Your task to perform on an android device: Add "razer nari" to the cart on bestbuy.com, then select checkout. Image 0: 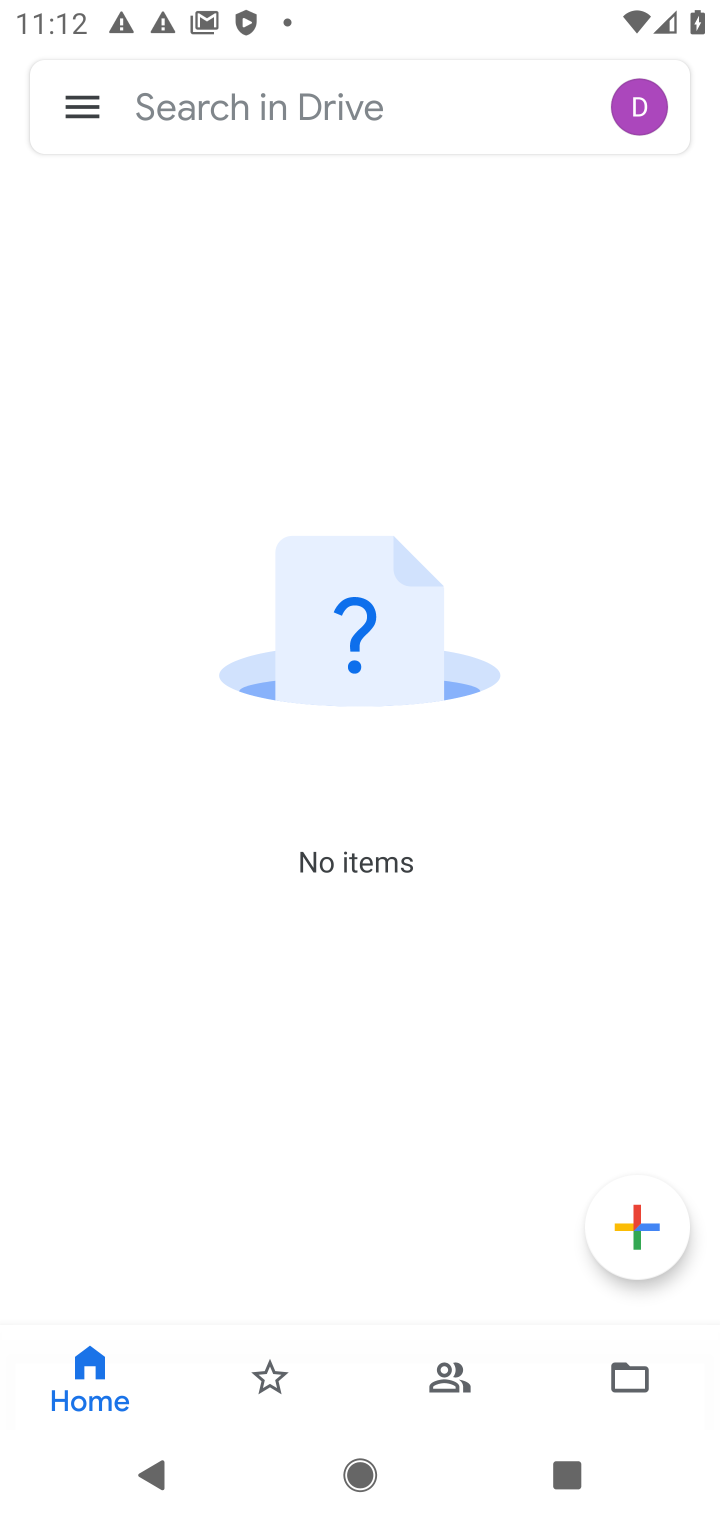
Step 0: press home button
Your task to perform on an android device: Add "razer nari" to the cart on bestbuy.com, then select checkout. Image 1: 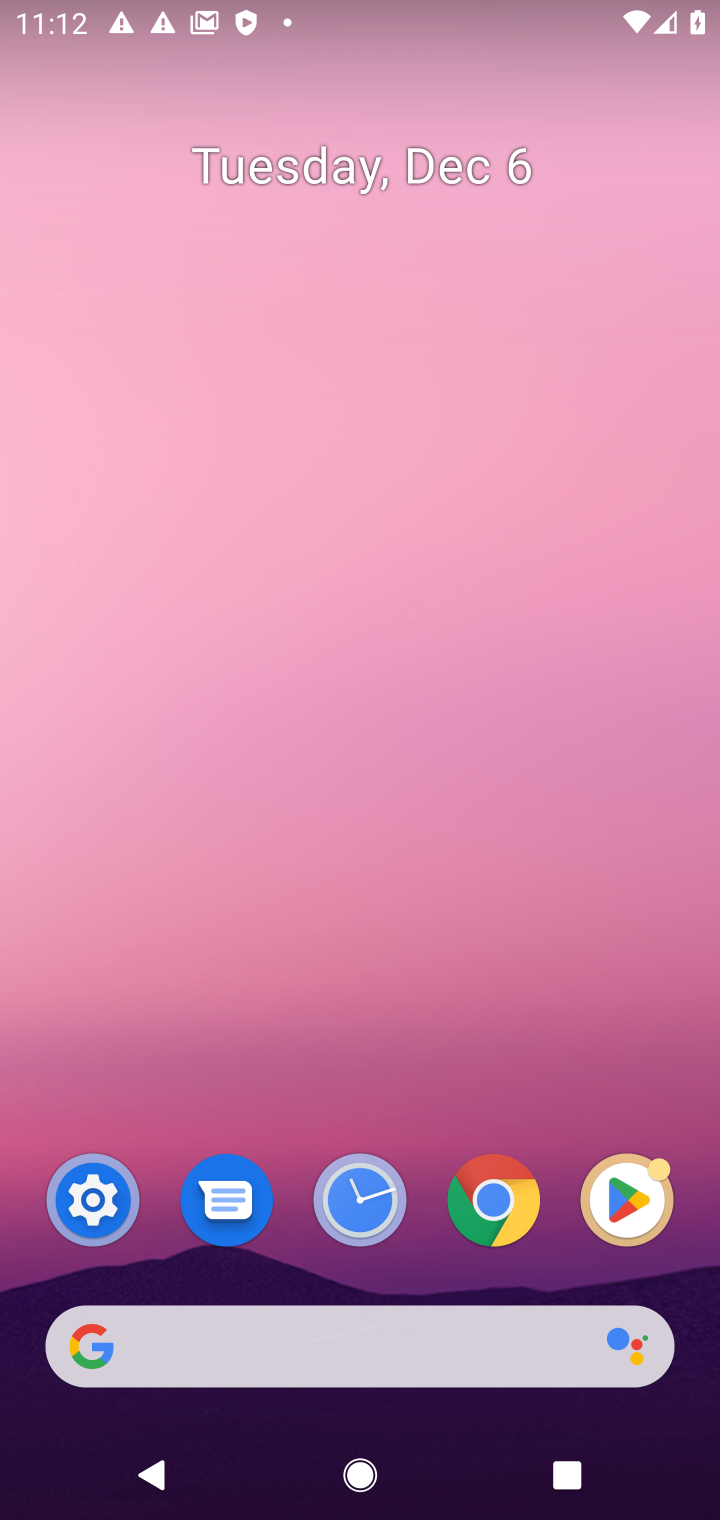
Step 1: click (346, 1370)
Your task to perform on an android device: Add "razer nari" to the cart on bestbuy.com, then select checkout. Image 2: 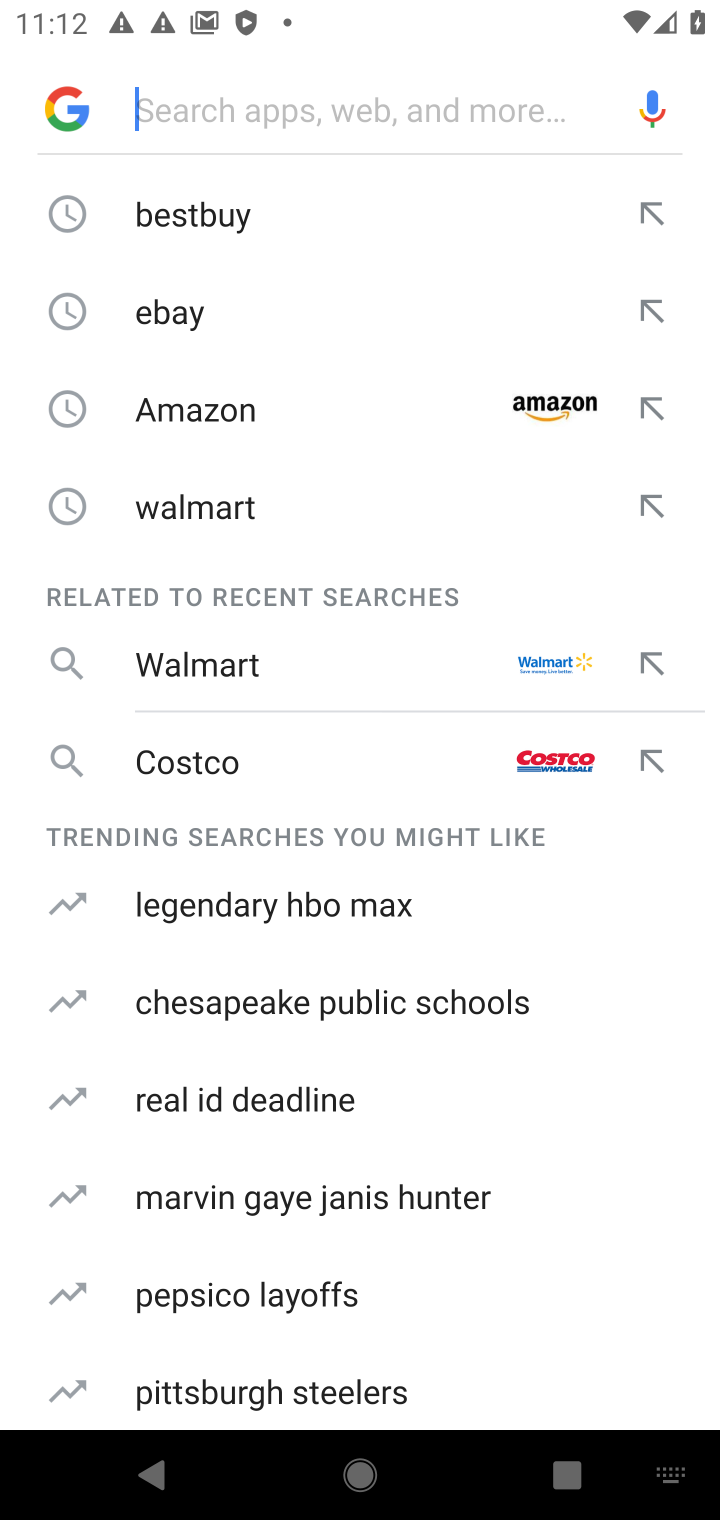
Step 2: type "bestbuy"
Your task to perform on an android device: Add "razer nari" to the cart on bestbuy.com, then select checkout. Image 3: 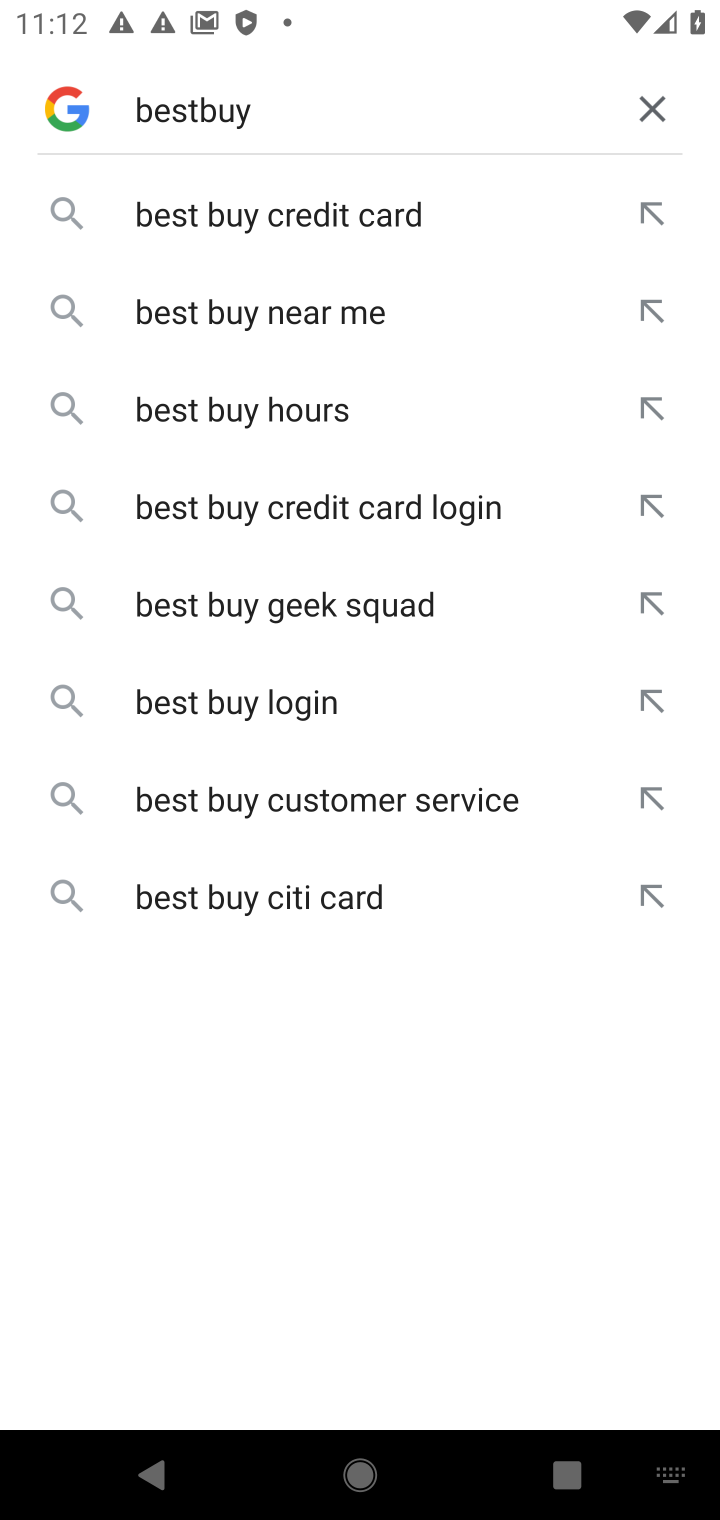
Step 3: click (238, 341)
Your task to perform on an android device: Add "razer nari" to the cart on bestbuy.com, then select checkout. Image 4: 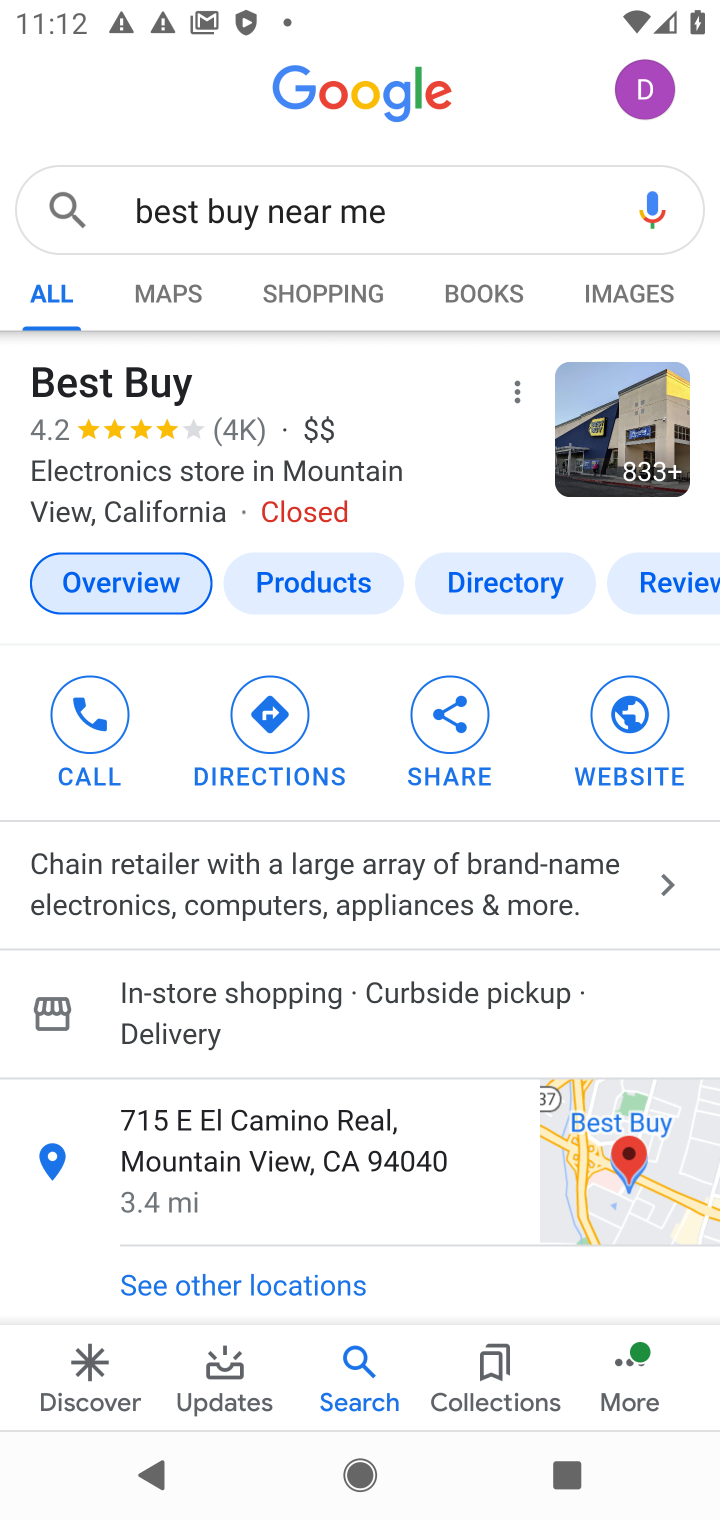
Step 4: click (170, 417)
Your task to perform on an android device: Add "razer nari" to the cart on bestbuy.com, then select checkout. Image 5: 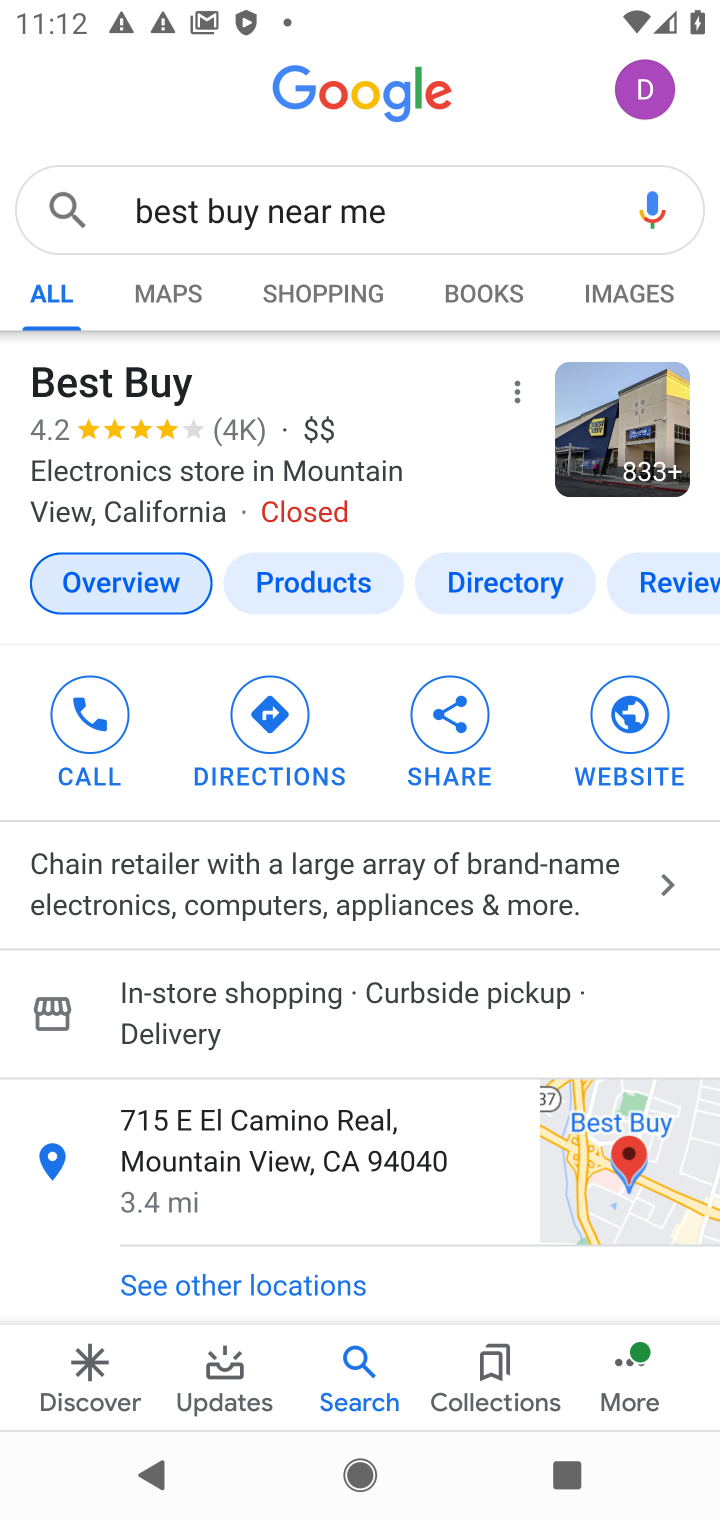
Step 5: click (62, 374)
Your task to perform on an android device: Add "razer nari" to the cart on bestbuy.com, then select checkout. Image 6: 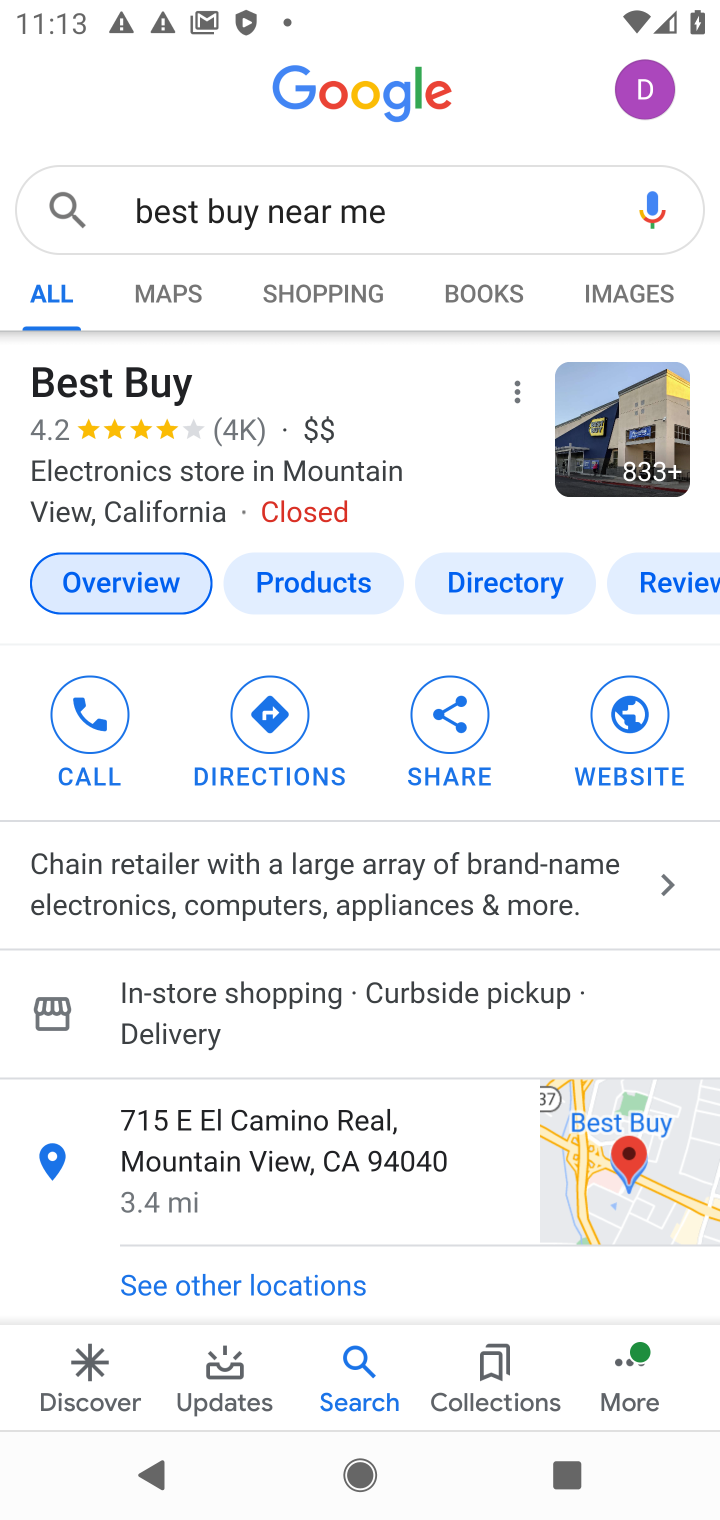
Step 6: task complete